Your task to perform on an android device: turn off airplane mode Image 0: 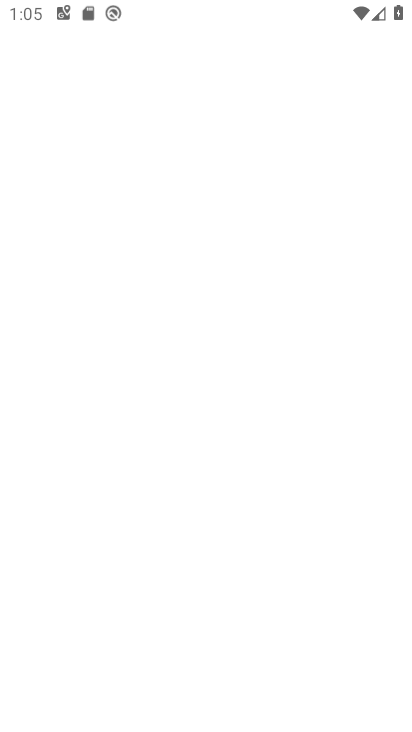
Step 0: press home button
Your task to perform on an android device: turn off airplane mode Image 1: 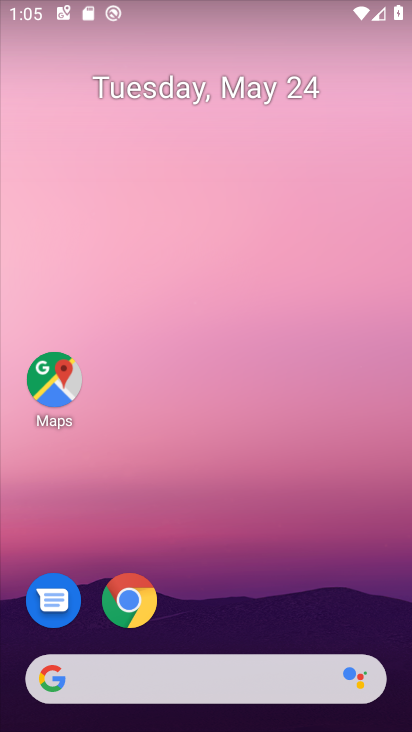
Step 1: drag from (240, 627) to (193, 196)
Your task to perform on an android device: turn off airplane mode Image 2: 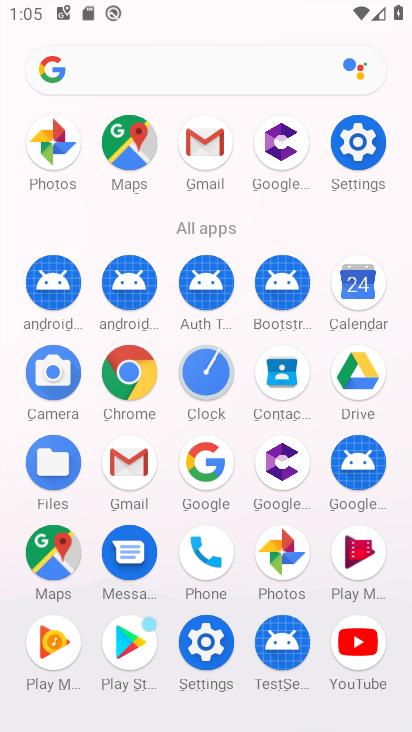
Step 2: click (336, 148)
Your task to perform on an android device: turn off airplane mode Image 3: 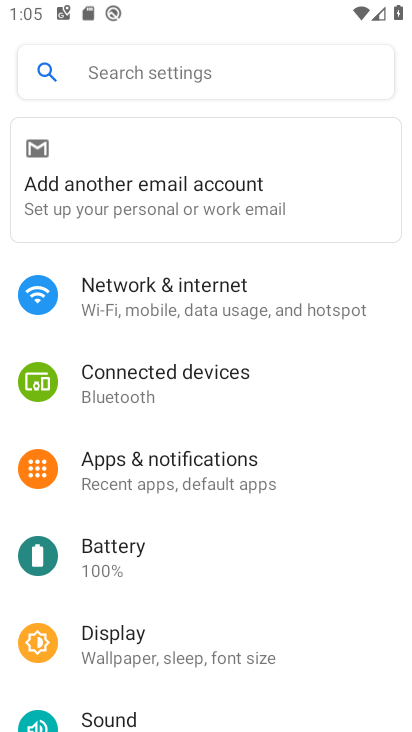
Step 3: click (207, 286)
Your task to perform on an android device: turn off airplane mode Image 4: 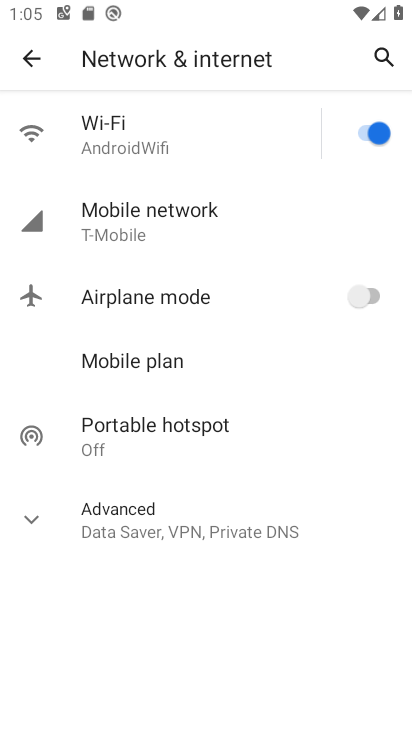
Step 4: task complete